Your task to perform on an android device: turn off improve location accuracy Image 0: 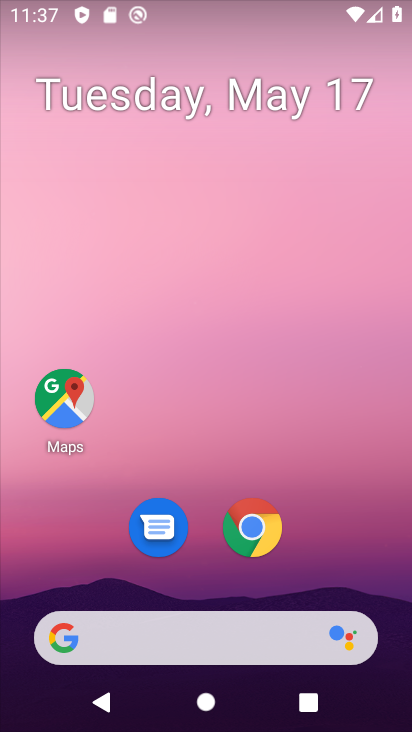
Step 0: drag from (326, 570) to (348, 102)
Your task to perform on an android device: turn off improve location accuracy Image 1: 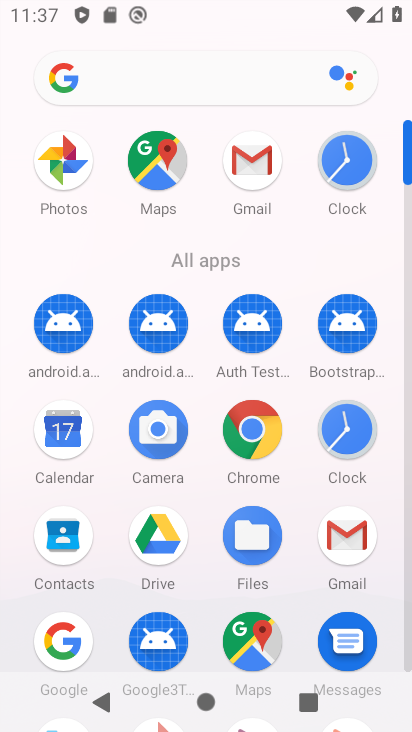
Step 1: drag from (297, 550) to (292, 247)
Your task to perform on an android device: turn off improve location accuracy Image 2: 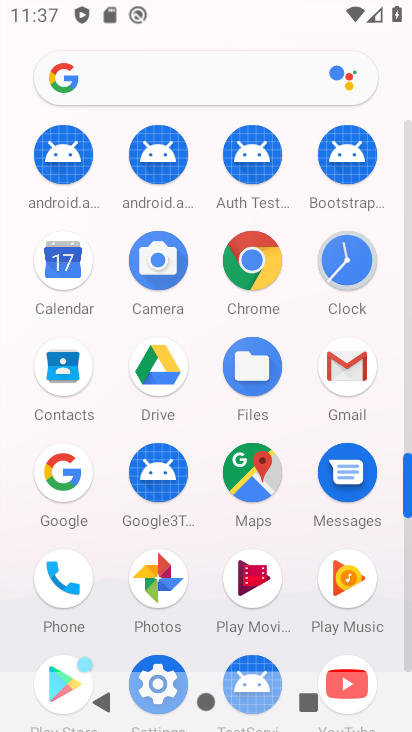
Step 2: click (164, 666)
Your task to perform on an android device: turn off improve location accuracy Image 3: 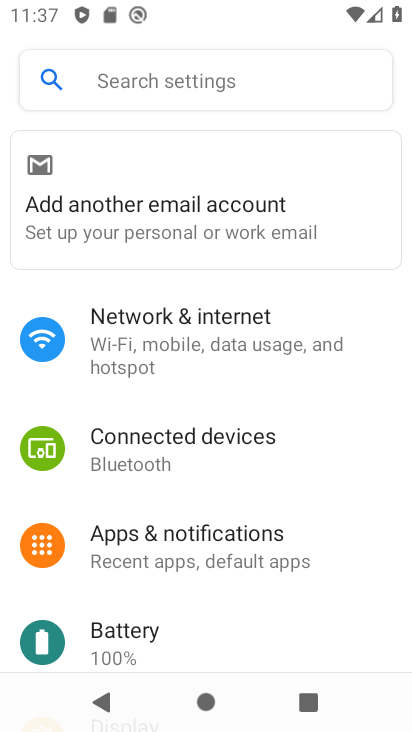
Step 3: drag from (280, 570) to (279, 217)
Your task to perform on an android device: turn off improve location accuracy Image 4: 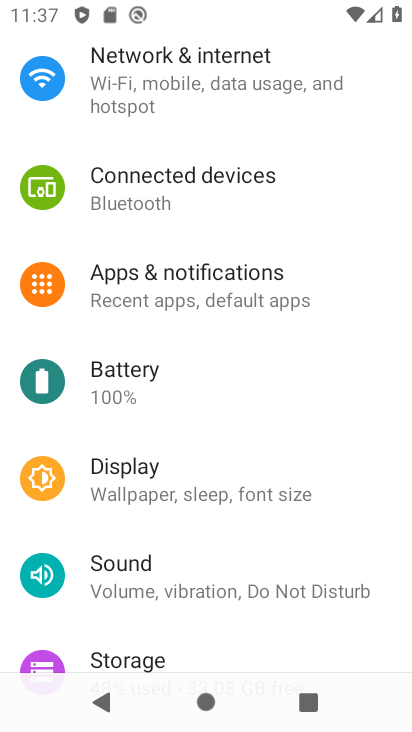
Step 4: drag from (264, 584) to (297, 336)
Your task to perform on an android device: turn off improve location accuracy Image 5: 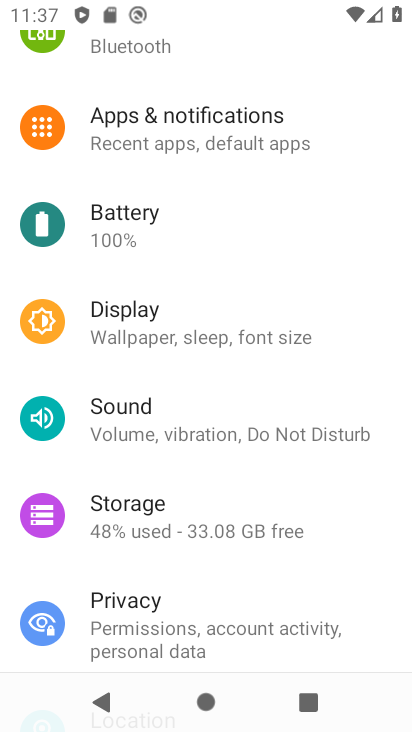
Step 5: drag from (221, 528) to (221, 224)
Your task to perform on an android device: turn off improve location accuracy Image 6: 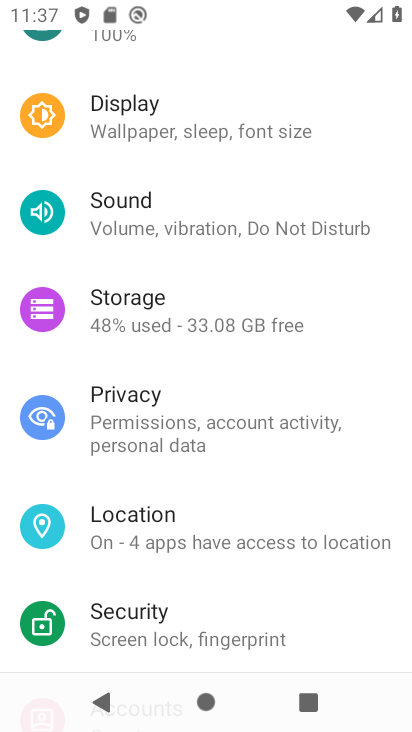
Step 6: click (190, 512)
Your task to perform on an android device: turn off improve location accuracy Image 7: 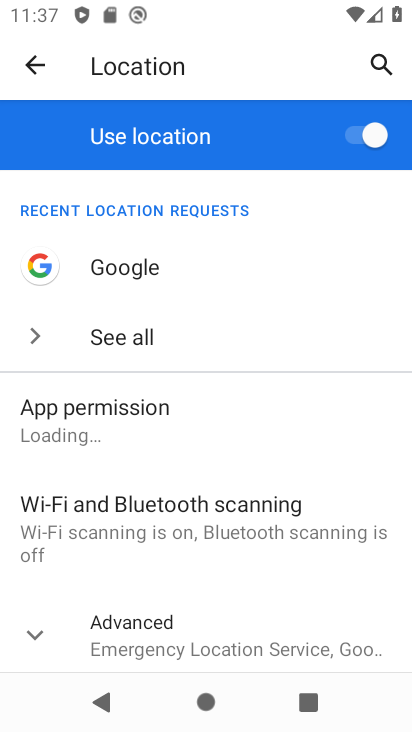
Step 7: click (39, 631)
Your task to perform on an android device: turn off improve location accuracy Image 8: 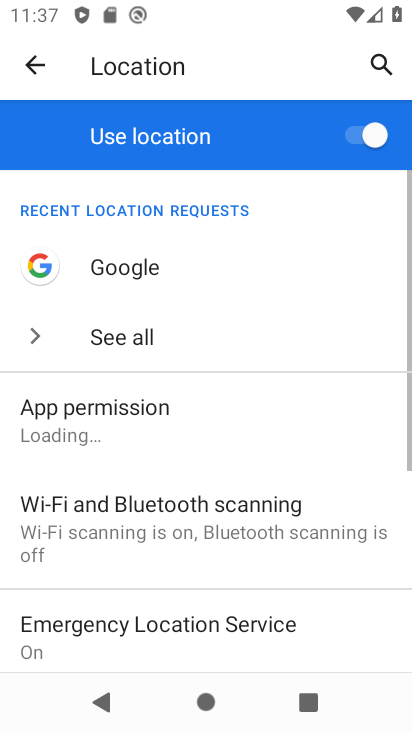
Step 8: drag from (163, 601) to (166, 323)
Your task to perform on an android device: turn off improve location accuracy Image 9: 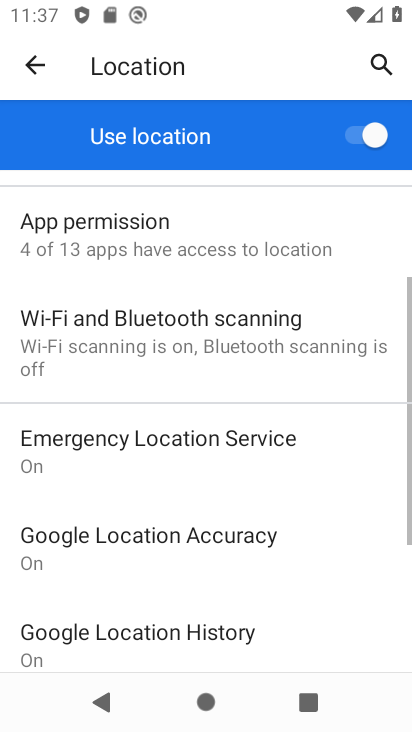
Step 9: click (212, 545)
Your task to perform on an android device: turn off improve location accuracy Image 10: 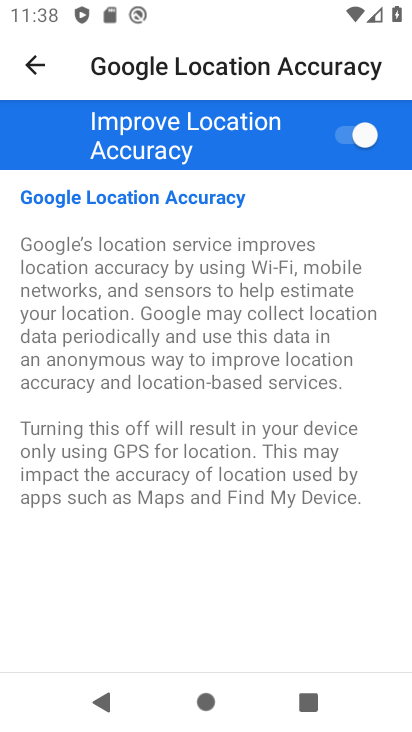
Step 10: click (367, 133)
Your task to perform on an android device: turn off improve location accuracy Image 11: 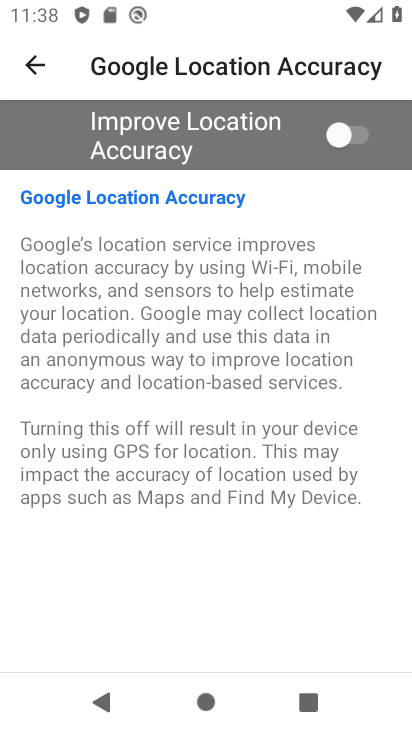
Step 11: task complete